Your task to perform on an android device: What's the weather going to be this weekend? Image 0: 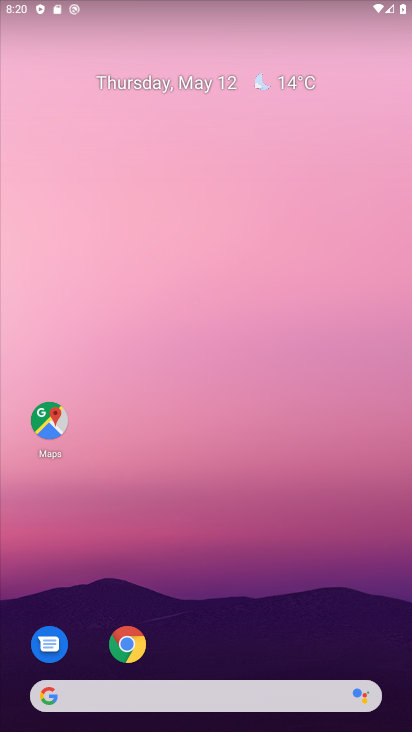
Step 0: drag from (309, 605) to (263, 148)
Your task to perform on an android device: What's the weather going to be this weekend? Image 1: 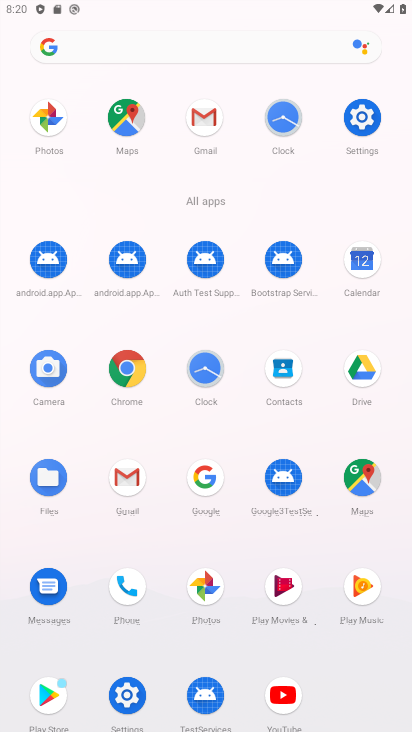
Step 1: press home button
Your task to perform on an android device: What's the weather going to be this weekend? Image 2: 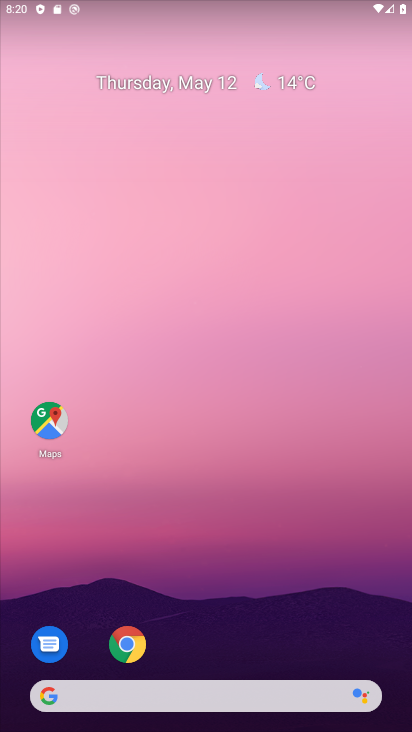
Step 2: click (305, 86)
Your task to perform on an android device: What's the weather going to be this weekend? Image 3: 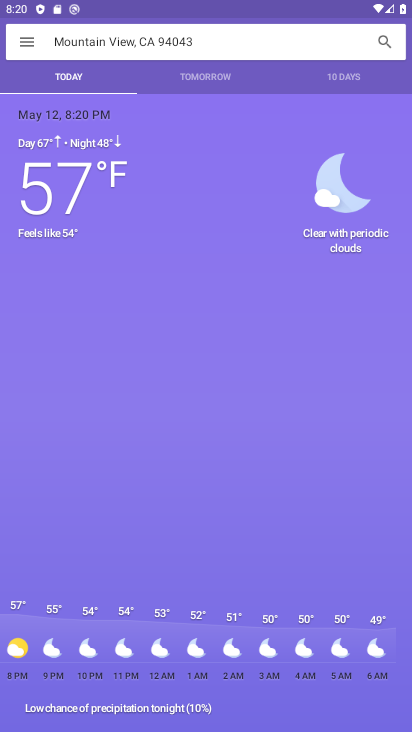
Step 3: click (354, 75)
Your task to perform on an android device: What's the weather going to be this weekend? Image 4: 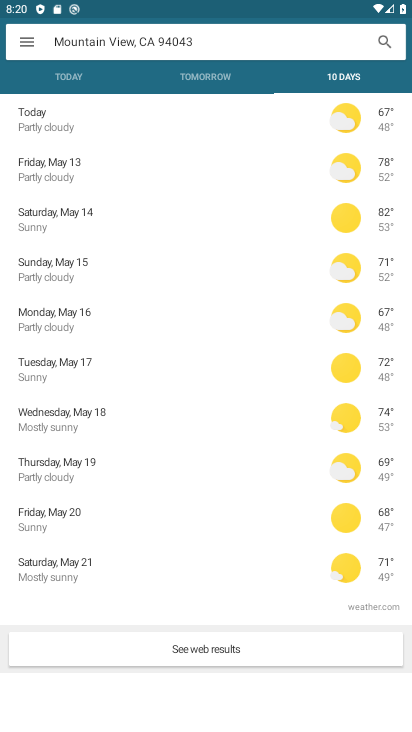
Step 4: task complete